Your task to perform on an android device: toggle priority inbox in the gmail app Image 0: 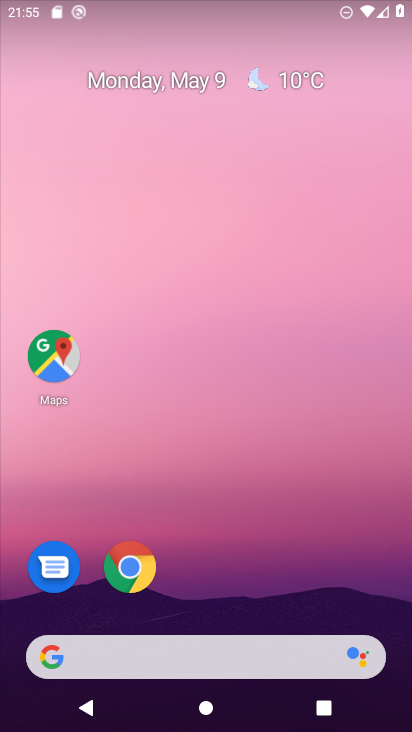
Step 0: drag from (228, 574) to (245, 55)
Your task to perform on an android device: toggle priority inbox in the gmail app Image 1: 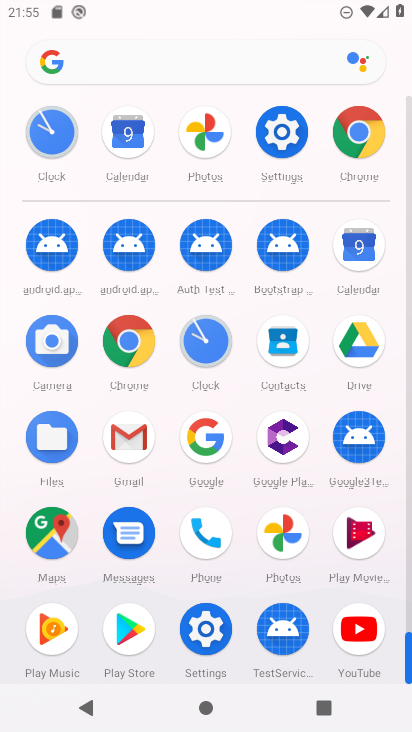
Step 1: click (145, 428)
Your task to perform on an android device: toggle priority inbox in the gmail app Image 2: 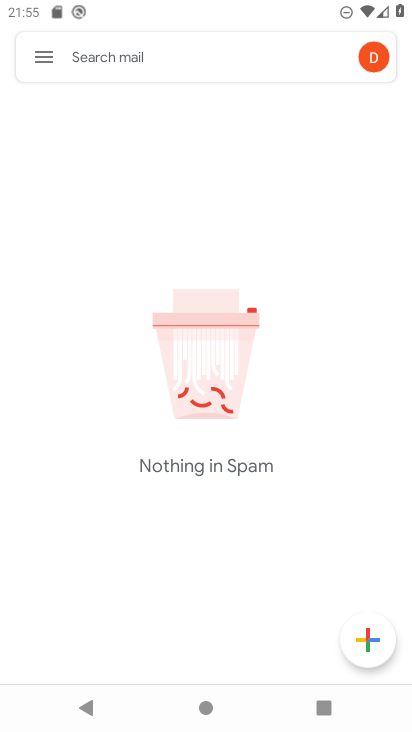
Step 2: click (43, 58)
Your task to perform on an android device: toggle priority inbox in the gmail app Image 3: 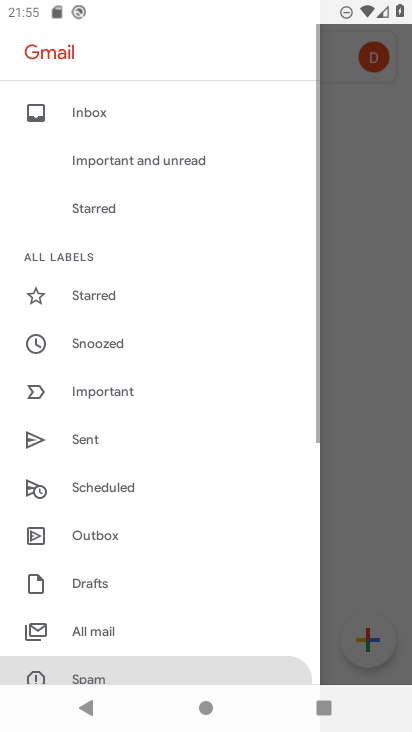
Step 3: drag from (165, 562) to (237, 141)
Your task to perform on an android device: toggle priority inbox in the gmail app Image 4: 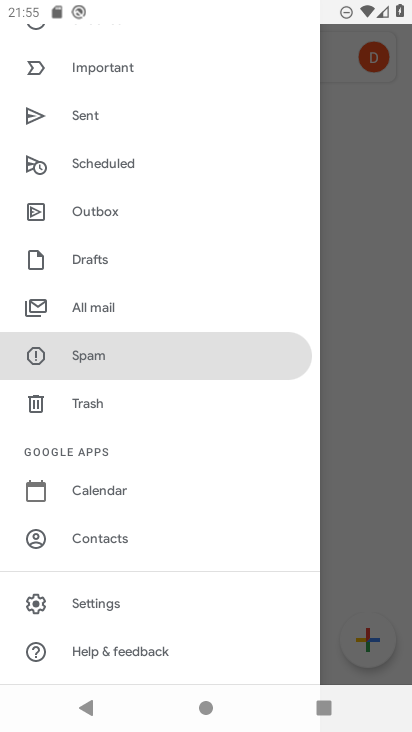
Step 4: click (92, 592)
Your task to perform on an android device: toggle priority inbox in the gmail app Image 5: 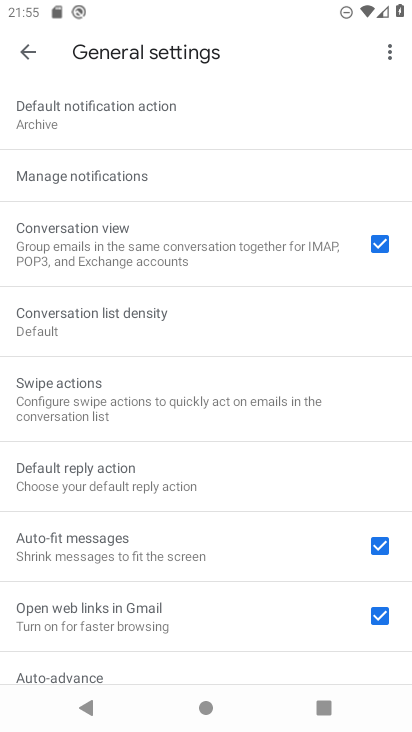
Step 5: click (33, 47)
Your task to perform on an android device: toggle priority inbox in the gmail app Image 6: 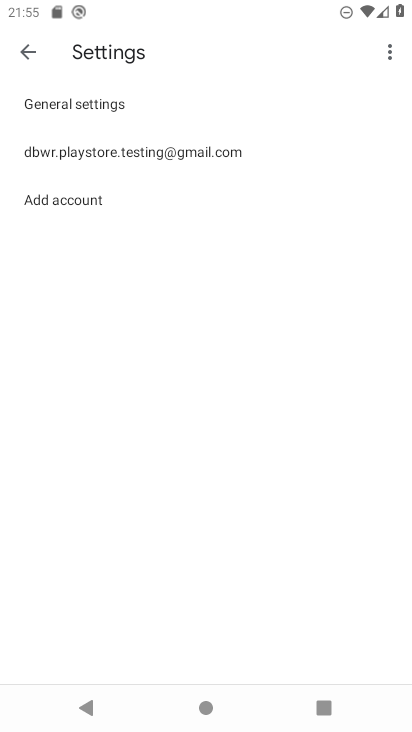
Step 6: click (66, 144)
Your task to perform on an android device: toggle priority inbox in the gmail app Image 7: 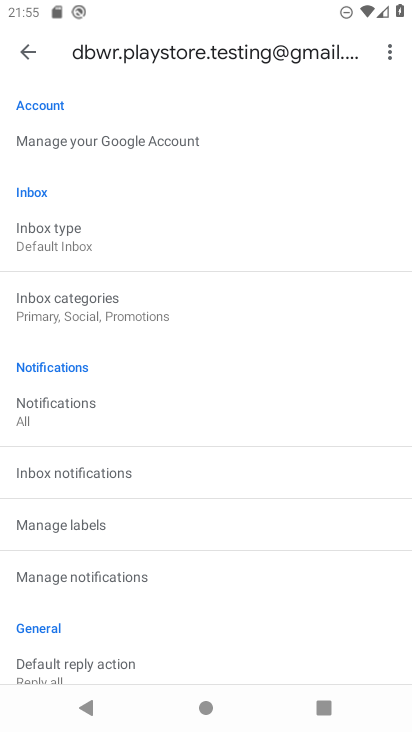
Step 7: click (66, 231)
Your task to perform on an android device: toggle priority inbox in the gmail app Image 8: 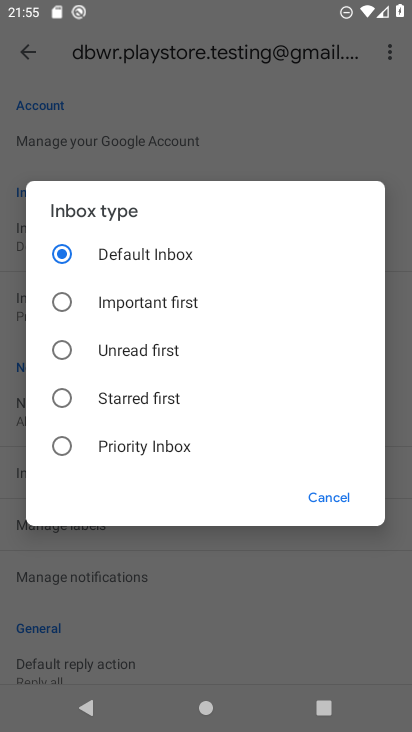
Step 8: click (69, 434)
Your task to perform on an android device: toggle priority inbox in the gmail app Image 9: 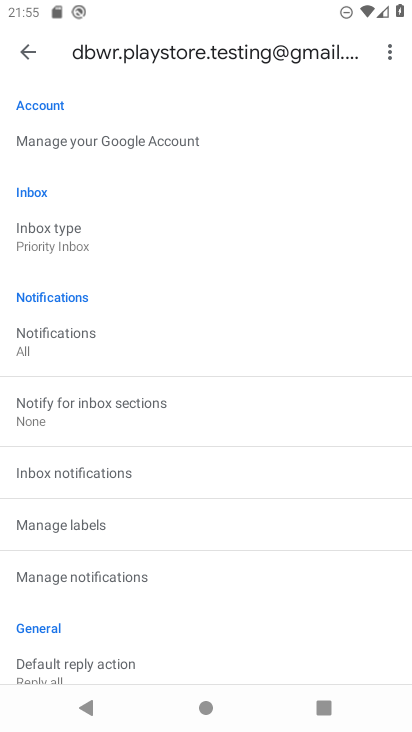
Step 9: task complete